Your task to perform on an android device: delete browsing data in the chrome app Image 0: 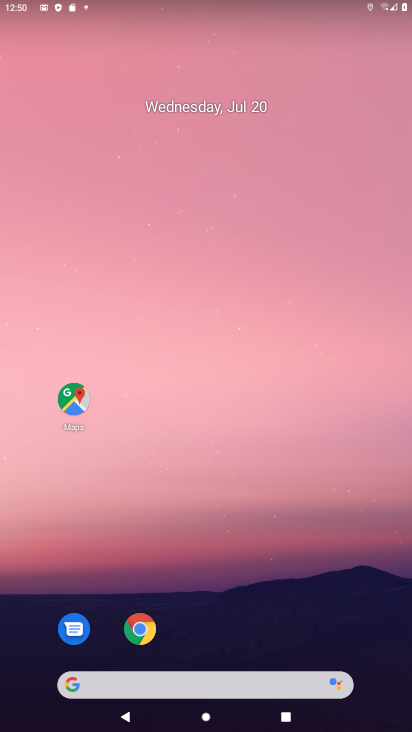
Step 0: click (141, 631)
Your task to perform on an android device: delete browsing data in the chrome app Image 1: 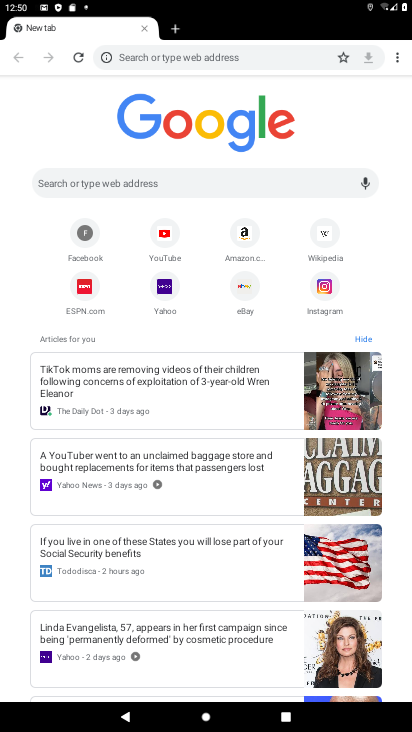
Step 1: click (400, 56)
Your task to perform on an android device: delete browsing data in the chrome app Image 2: 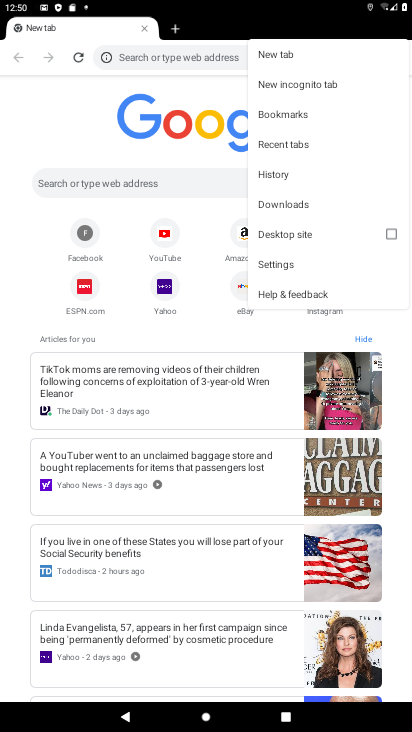
Step 2: click (284, 265)
Your task to perform on an android device: delete browsing data in the chrome app Image 3: 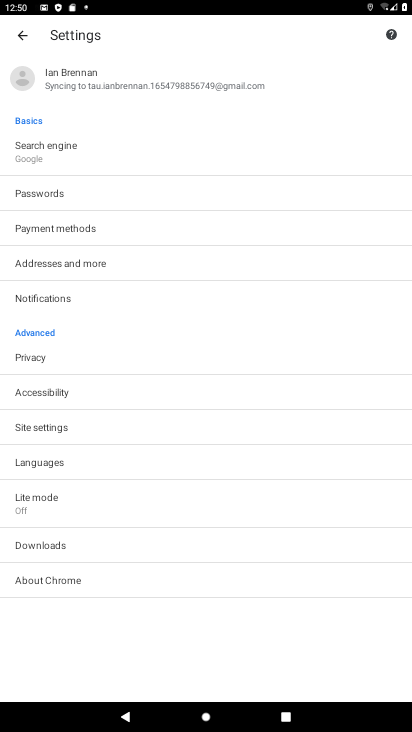
Step 3: click (31, 358)
Your task to perform on an android device: delete browsing data in the chrome app Image 4: 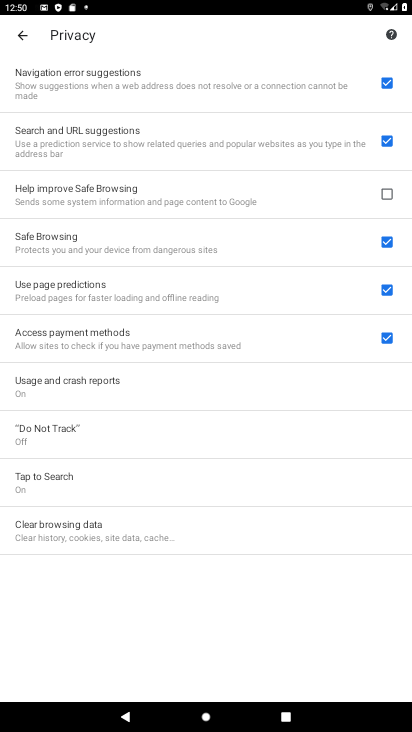
Step 4: click (95, 525)
Your task to perform on an android device: delete browsing data in the chrome app Image 5: 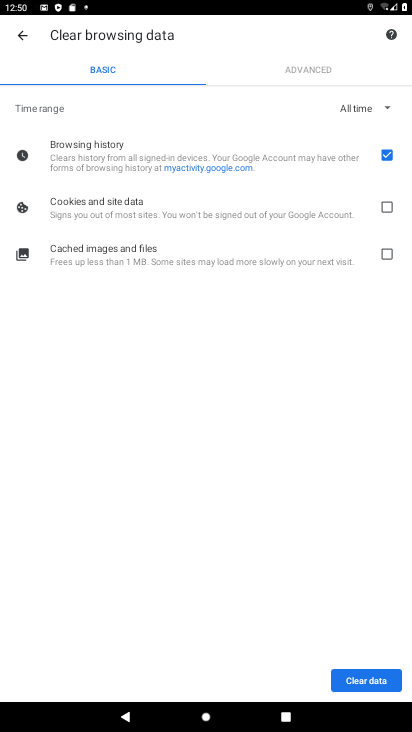
Step 5: click (385, 210)
Your task to perform on an android device: delete browsing data in the chrome app Image 6: 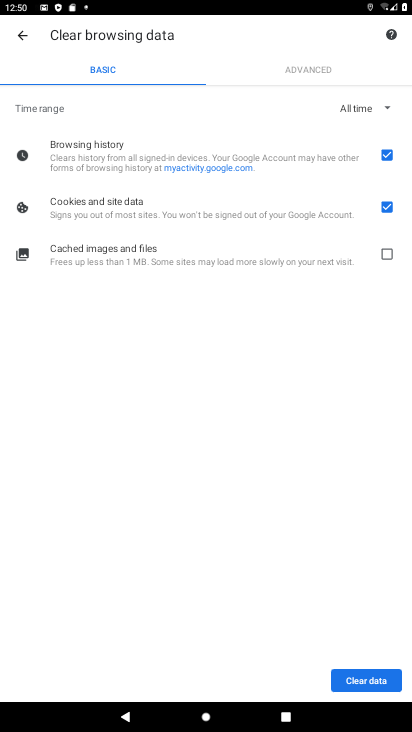
Step 6: click (387, 253)
Your task to perform on an android device: delete browsing data in the chrome app Image 7: 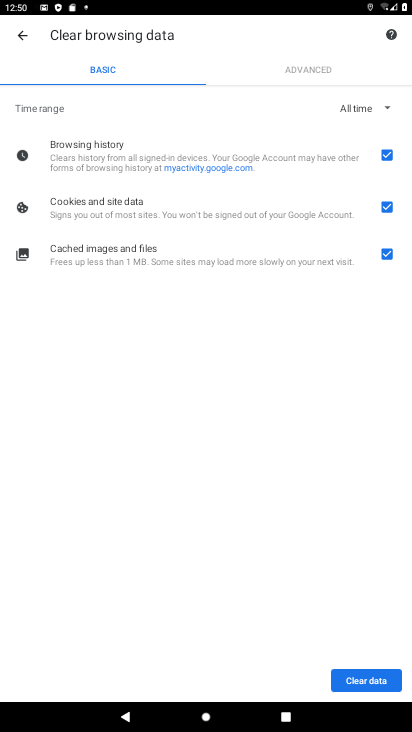
Step 7: click (373, 677)
Your task to perform on an android device: delete browsing data in the chrome app Image 8: 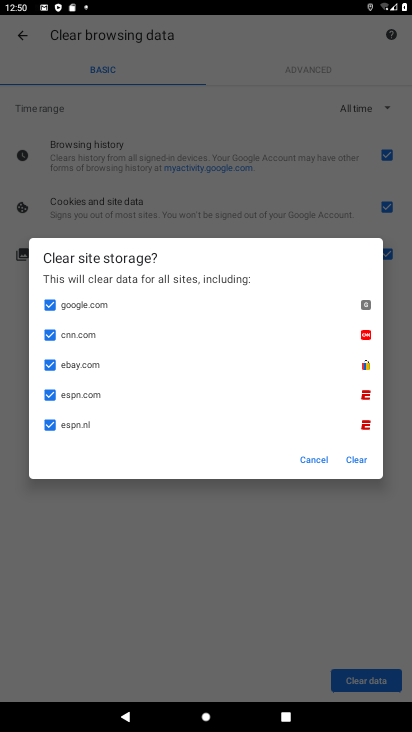
Step 8: click (360, 459)
Your task to perform on an android device: delete browsing data in the chrome app Image 9: 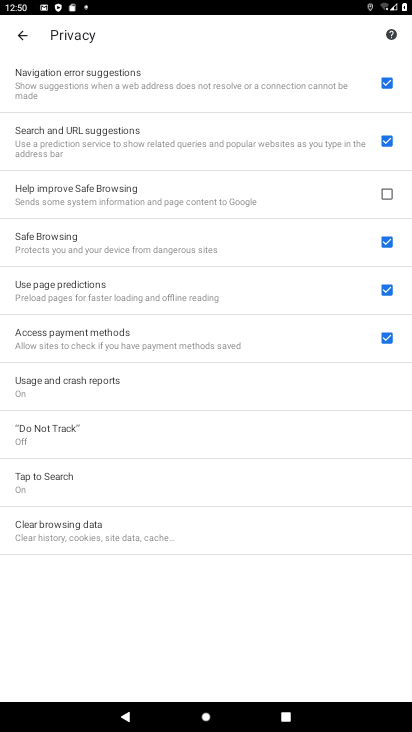
Step 9: task complete